Your task to perform on an android device: set an alarm Image 0: 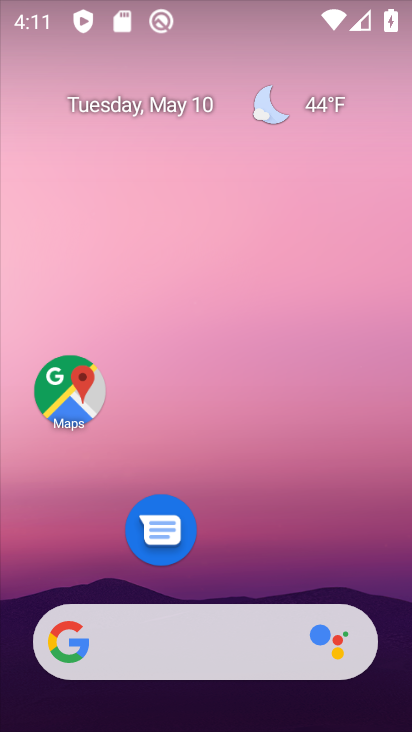
Step 0: drag from (233, 559) to (351, 12)
Your task to perform on an android device: set an alarm Image 1: 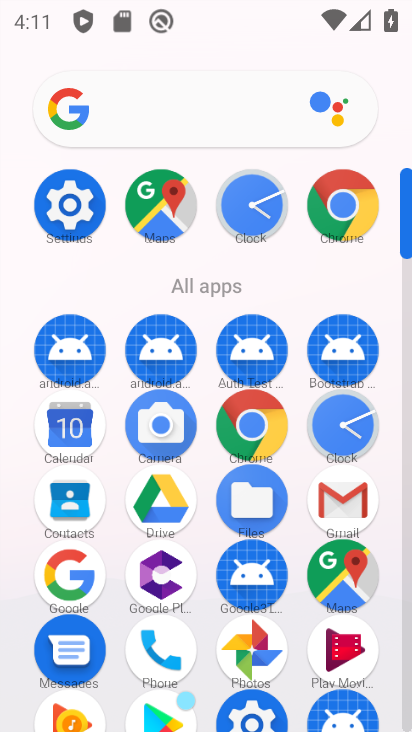
Step 1: click (243, 210)
Your task to perform on an android device: set an alarm Image 2: 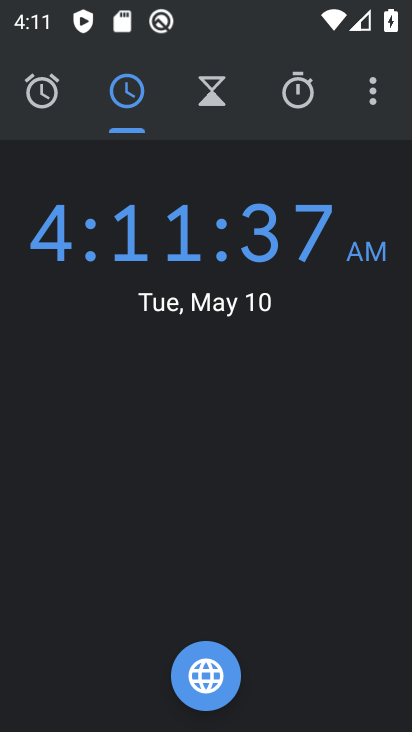
Step 2: click (60, 91)
Your task to perform on an android device: set an alarm Image 3: 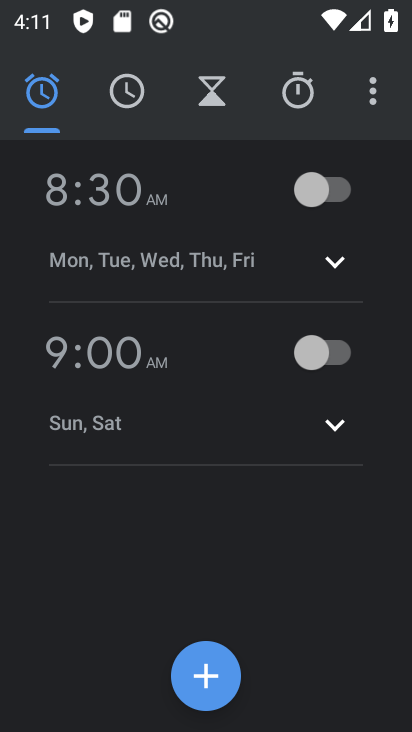
Step 3: click (321, 196)
Your task to perform on an android device: set an alarm Image 4: 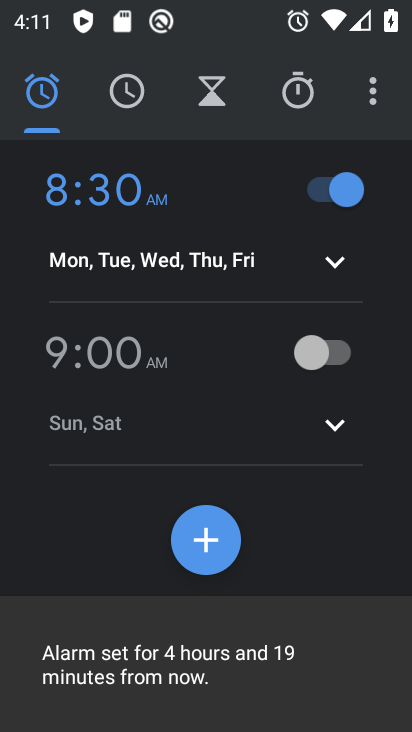
Step 4: task complete